Your task to perform on an android device: Open ESPN.com Image 0: 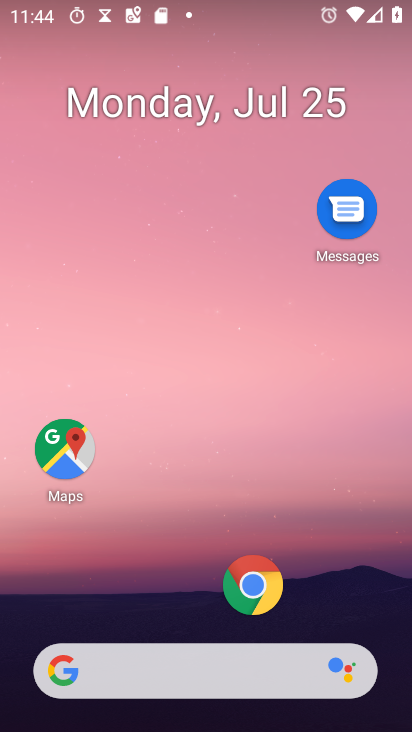
Step 0: press home button
Your task to perform on an android device: Open ESPN.com Image 1: 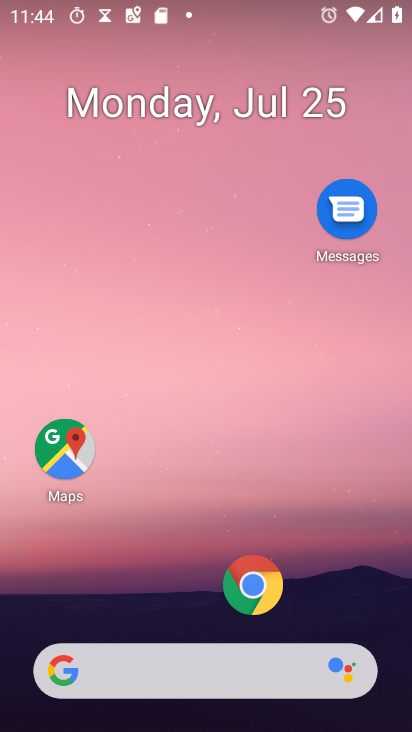
Step 1: click (256, 590)
Your task to perform on an android device: Open ESPN.com Image 2: 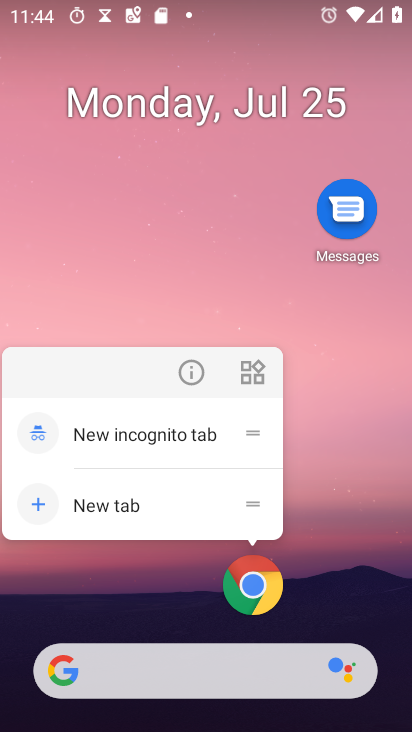
Step 2: click (256, 590)
Your task to perform on an android device: Open ESPN.com Image 3: 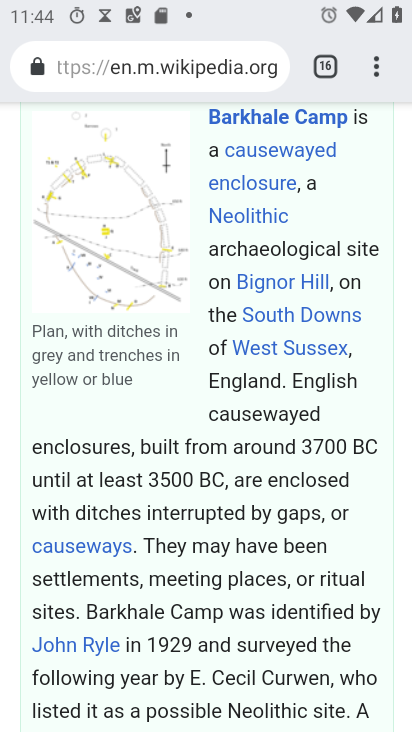
Step 3: drag from (381, 63) to (145, 127)
Your task to perform on an android device: Open ESPN.com Image 4: 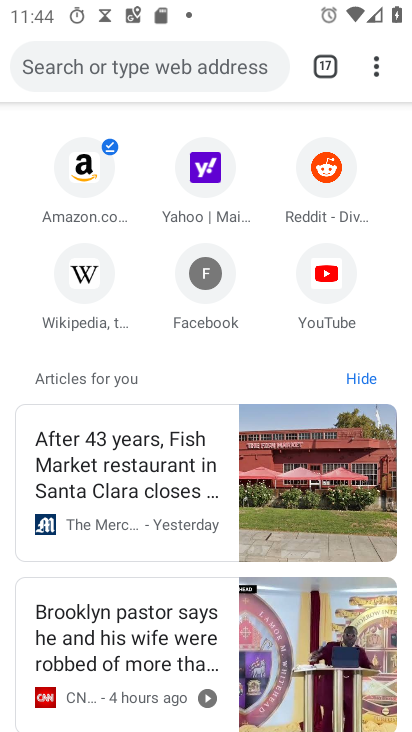
Step 4: click (105, 68)
Your task to perform on an android device: Open ESPN.com Image 5: 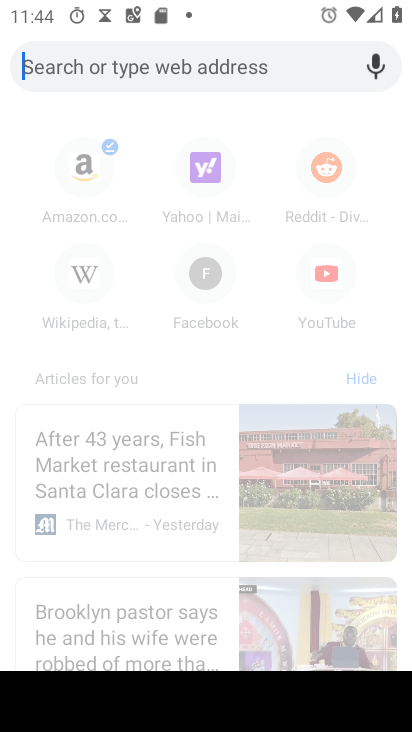
Step 5: type "ESPN.com"
Your task to perform on an android device: Open ESPN.com Image 6: 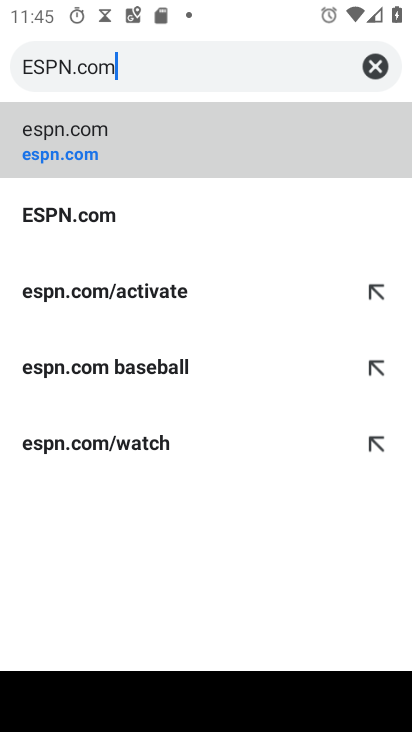
Step 6: click (97, 151)
Your task to perform on an android device: Open ESPN.com Image 7: 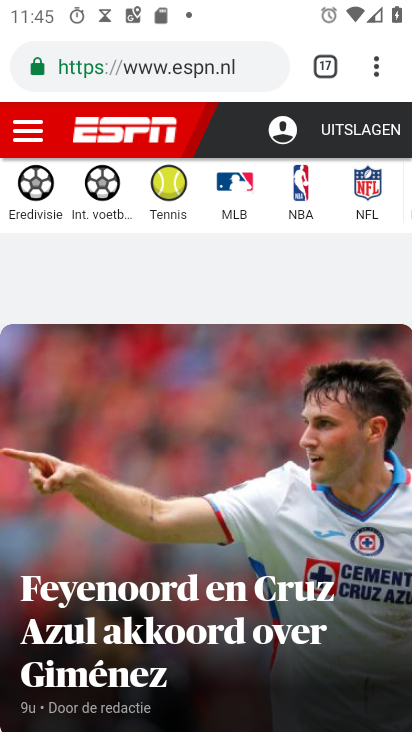
Step 7: task complete